Your task to perform on an android device: turn vacation reply on in the gmail app Image 0: 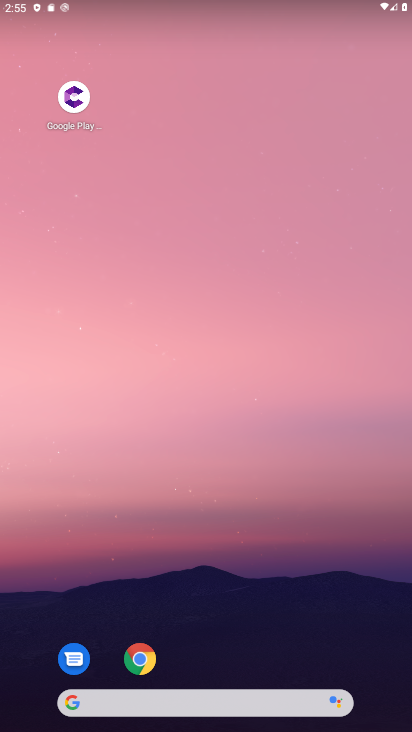
Step 0: drag from (220, 580) to (257, 213)
Your task to perform on an android device: turn vacation reply on in the gmail app Image 1: 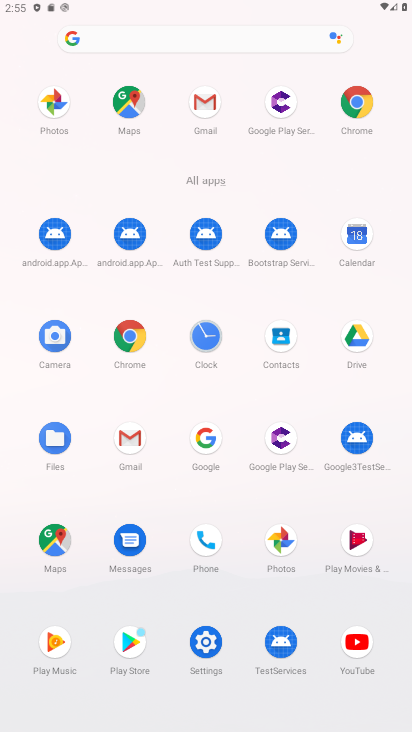
Step 1: click (128, 441)
Your task to perform on an android device: turn vacation reply on in the gmail app Image 2: 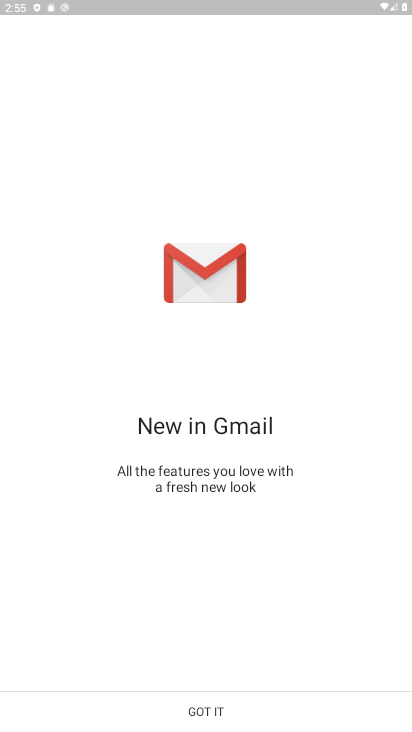
Step 2: click (245, 700)
Your task to perform on an android device: turn vacation reply on in the gmail app Image 3: 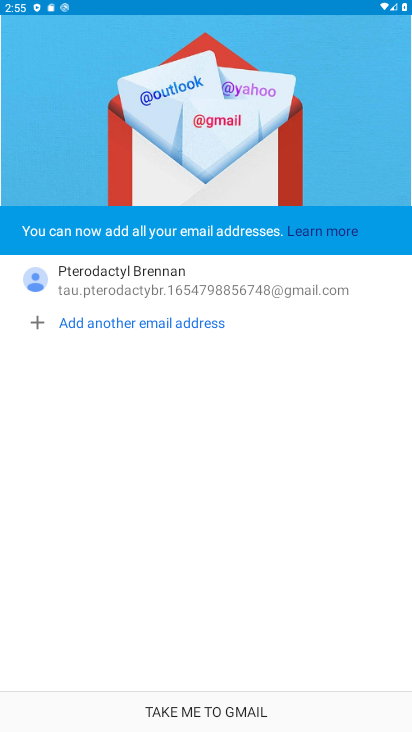
Step 3: click (243, 700)
Your task to perform on an android device: turn vacation reply on in the gmail app Image 4: 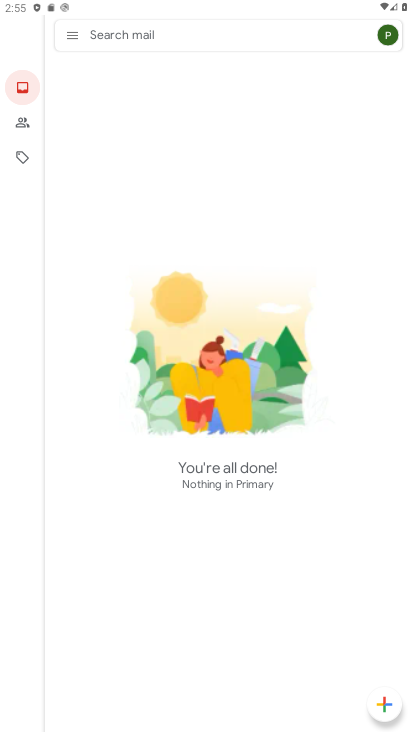
Step 4: click (71, 39)
Your task to perform on an android device: turn vacation reply on in the gmail app Image 5: 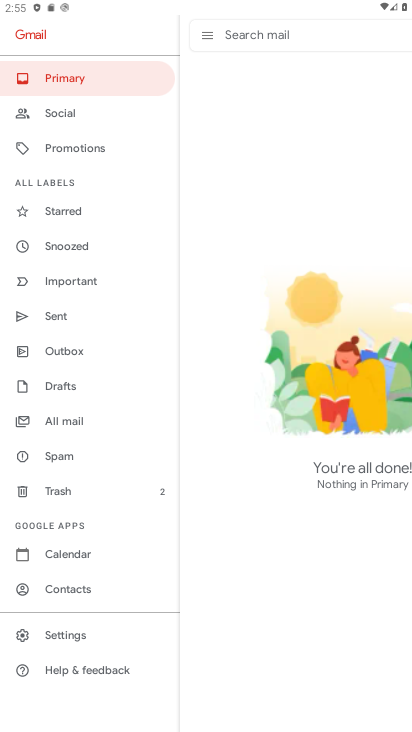
Step 5: click (83, 634)
Your task to perform on an android device: turn vacation reply on in the gmail app Image 6: 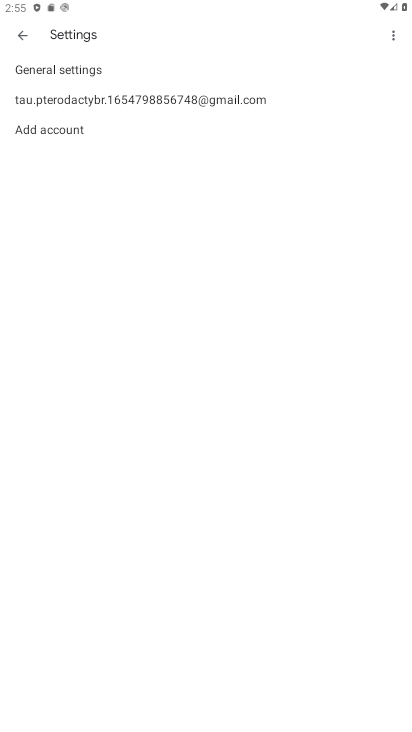
Step 6: click (217, 101)
Your task to perform on an android device: turn vacation reply on in the gmail app Image 7: 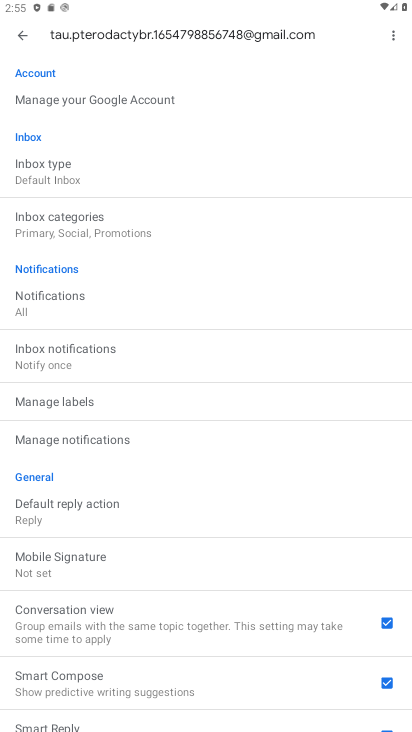
Step 7: drag from (176, 560) to (240, 268)
Your task to perform on an android device: turn vacation reply on in the gmail app Image 8: 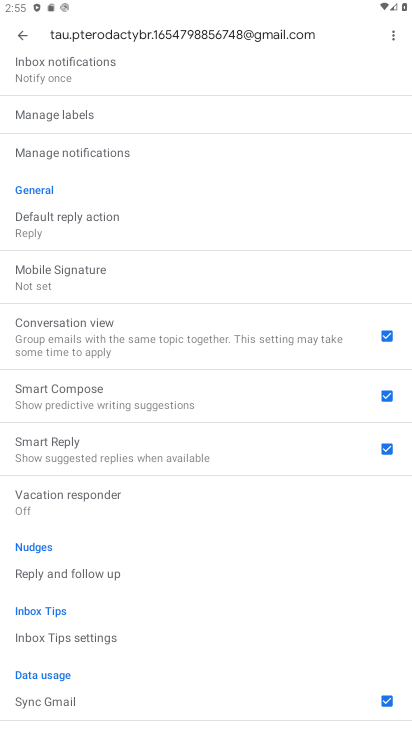
Step 8: click (123, 497)
Your task to perform on an android device: turn vacation reply on in the gmail app Image 9: 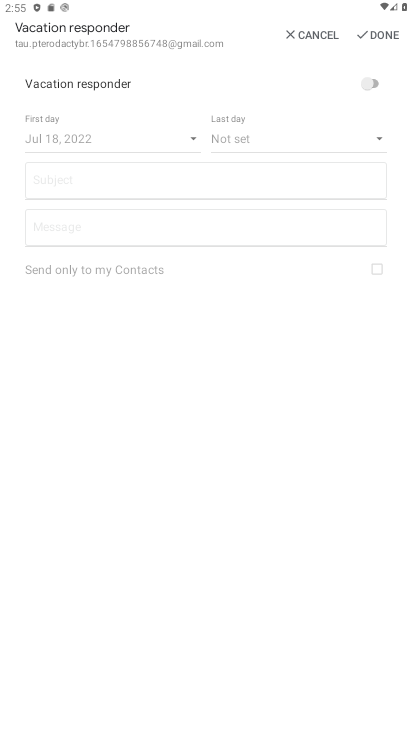
Step 9: click (377, 74)
Your task to perform on an android device: turn vacation reply on in the gmail app Image 10: 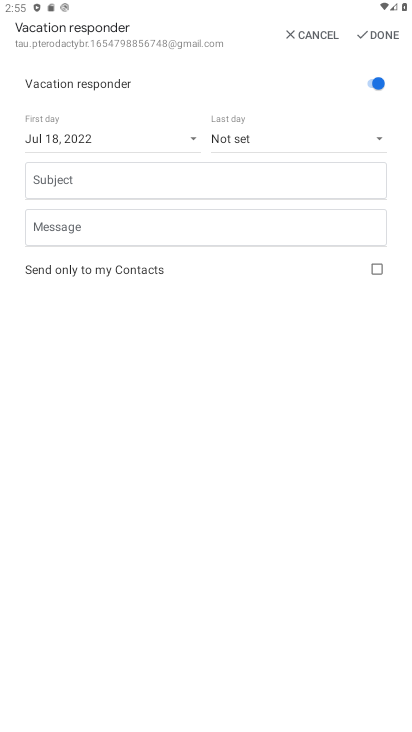
Step 10: click (312, 133)
Your task to perform on an android device: turn vacation reply on in the gmail app Image 11: 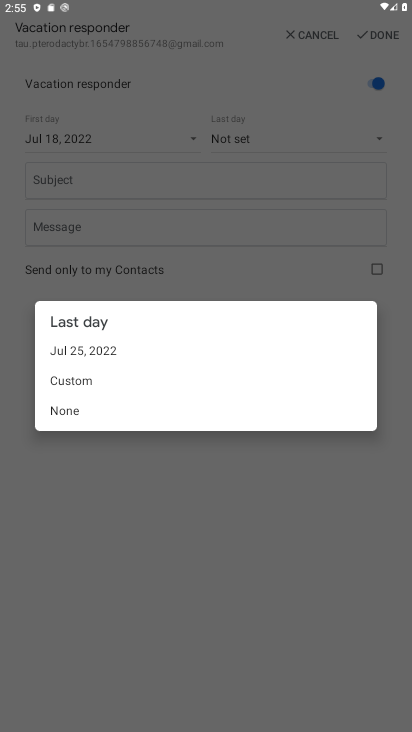
Step 11: click (214, 360)
Your task to perform on an android device: turn vacation reply on in the gmail app Image 12: 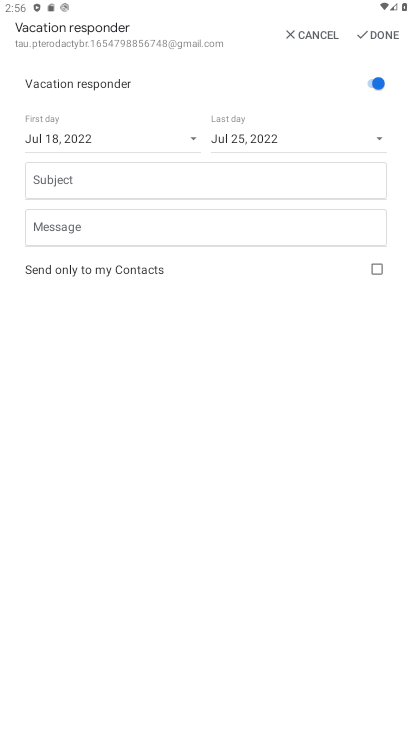
Step 12: click (182, 170)
Your task to perform on an android device: turn vacation reply on in the gmail app Image 13: 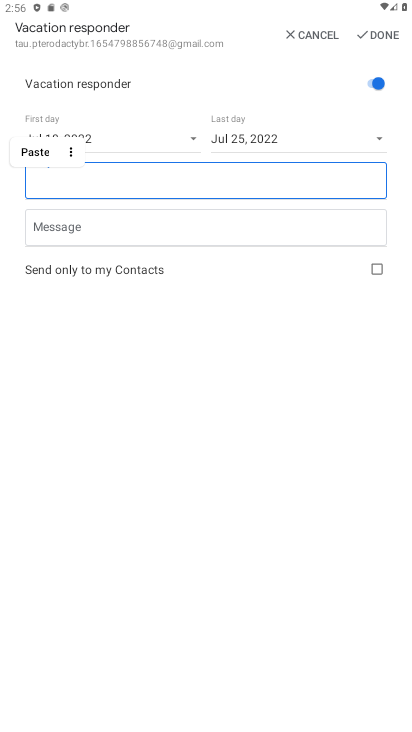
Step 13: type "brb"
Your task to perform on an android device: turn vacation reply on in the gmail app Image 14: 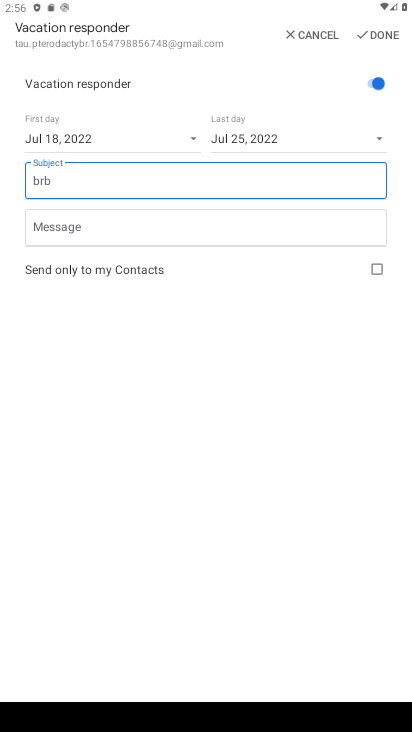
Step 14: click (141, 225)
Your task to perform on an android device: turn vacation reply on in the gmail app Image 15: 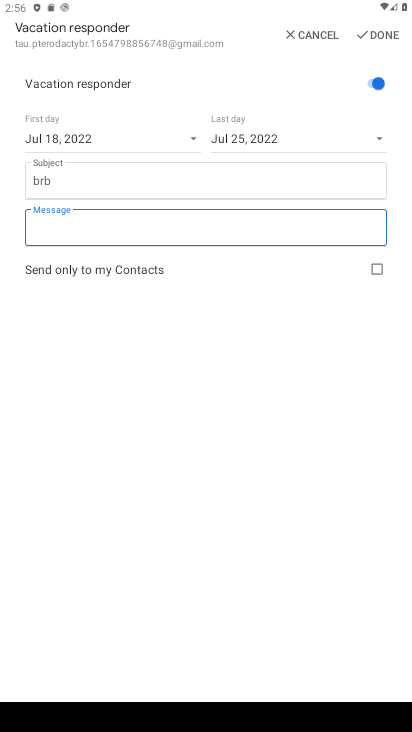
Step 15: type "xx"
Your task to perform on an android device: turn vacation reply on in the gmail app Image 16: 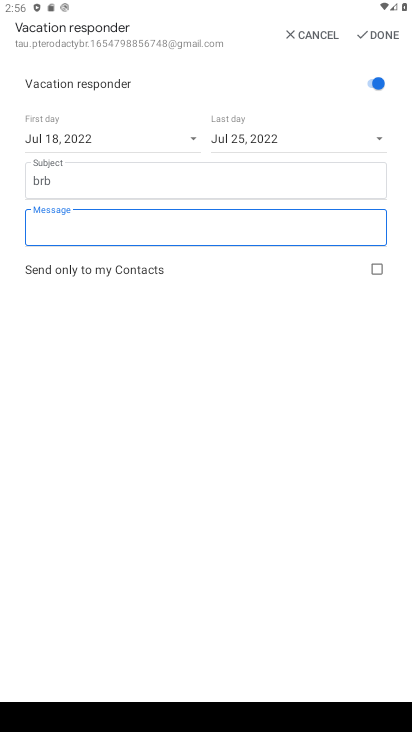
Step 16: click (394, 35)
Your task to perform on an android device: turn vacation reply on in the gmail app Image 17: 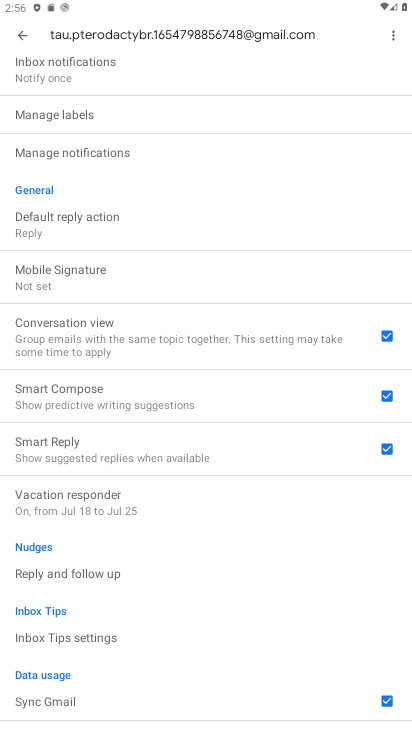
Step 17: task complete